Your task to perform on an android device: turn on improve location accuracy Image 0: 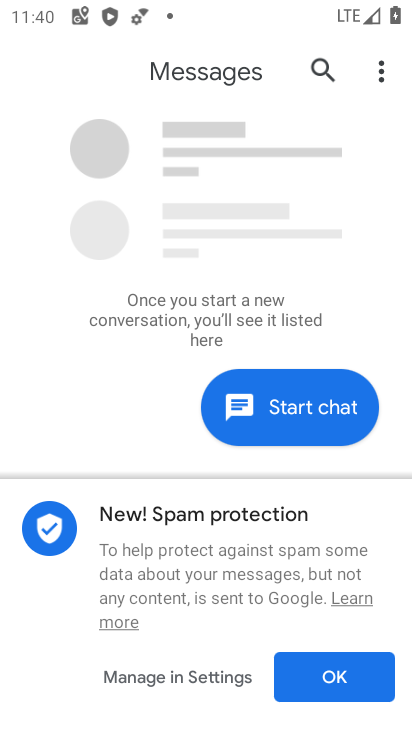
Step 0: press back button
Your task to perform on an android device: turn on improve location accuracy Image 1: 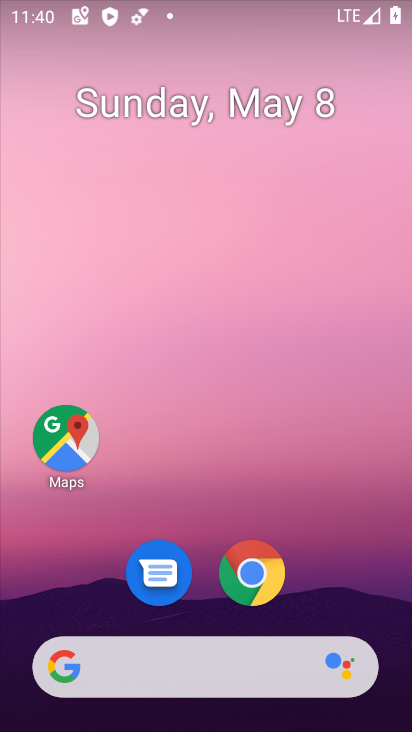
Step 1: drag from (339, 595) to (262, 19)
Your task to perform on an android device: turn on improve location accuracy Image 2: 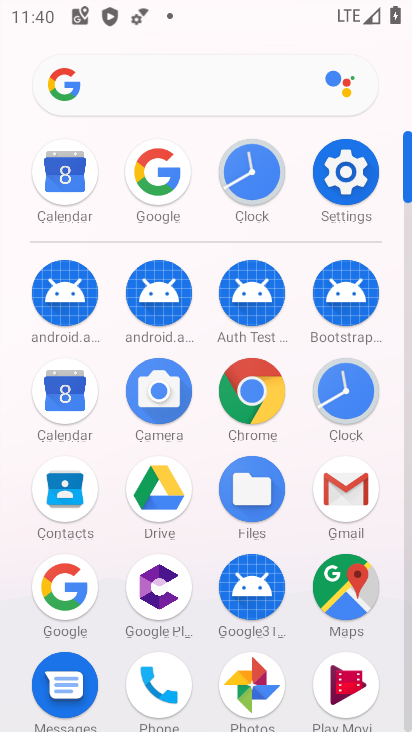
Step 2: drag from (3, 582) to (0, 323)
Your task to perform on an android device: turn on improve location accuracy Image 3: 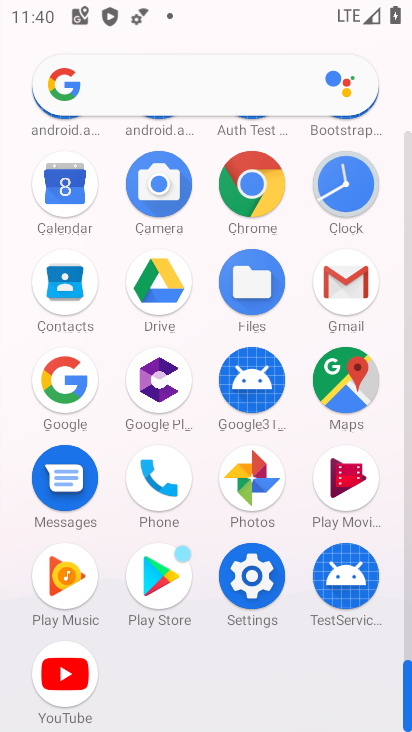
Step 3: drag from (17, 600) to (27, 374)
Your task to perform on an android device: turn on improve location accuracy Image 4: 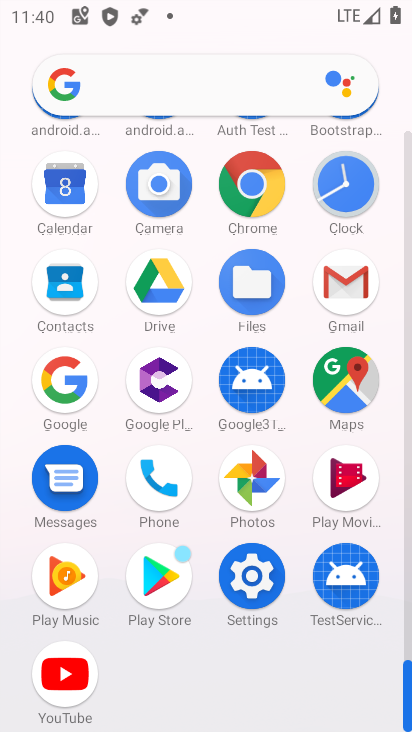
Step 4: click (250, 570)
Your task to perform on an android device: turn on improve location accuracy Image 5: 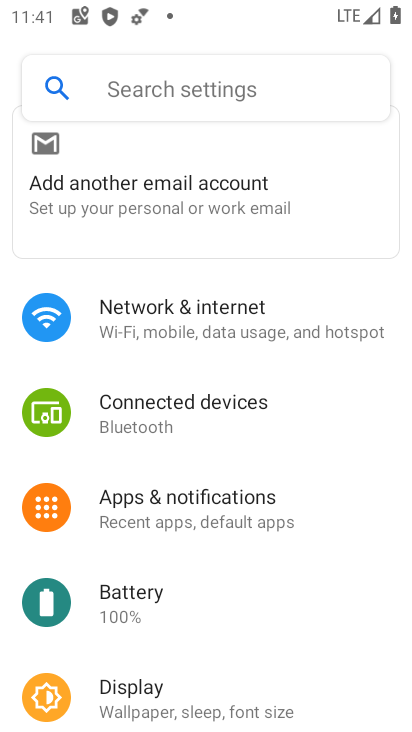
Step 5: drag from (288, 652) to (333, 285)
Your task to perform on an android device: turn on improve location accuracy Image 6: 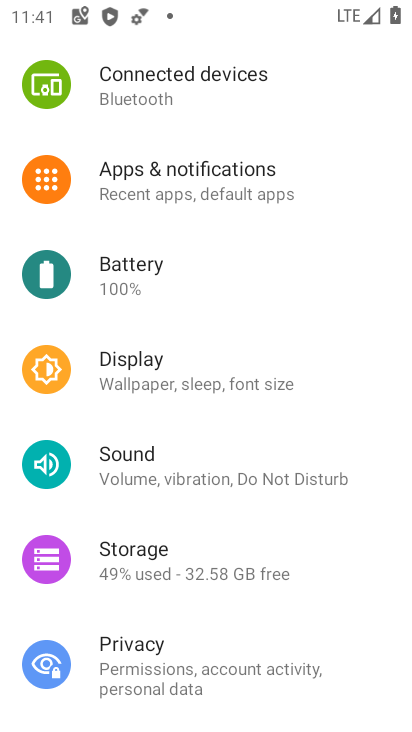
Step 6: drag from (251, 547) to (305, 142)
Your task to perform on an android device: turn on improve location accuracy Image 7: 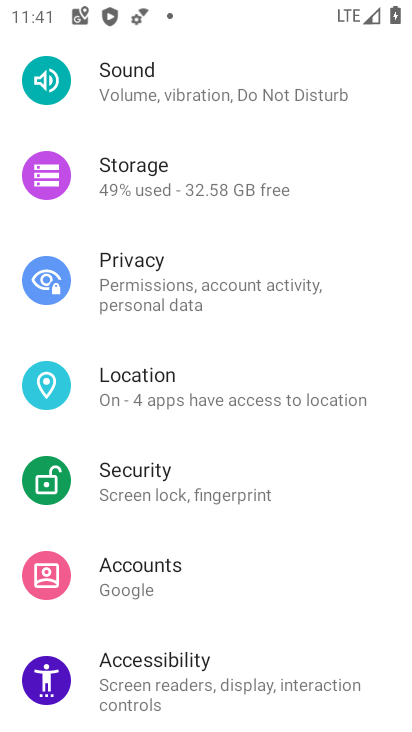
Step 7: click (172, 388)
Your task to perform on an android device: turn on improve location accuracy Image 8: 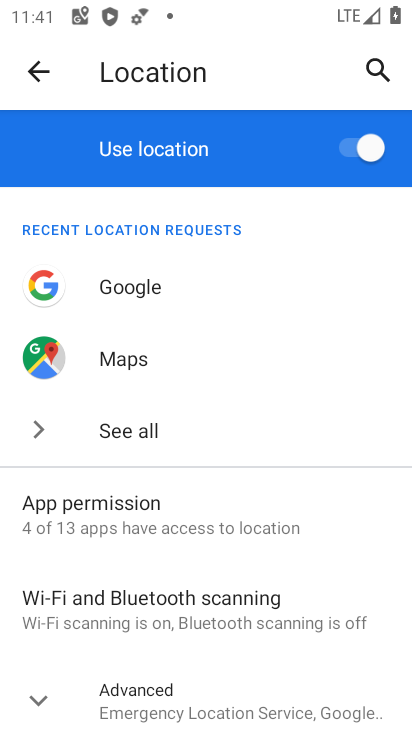
Step 8: drag from (237, 612) to (222, 271)
Your task to perform on an android device: turn on improve location accuracy Image 9: 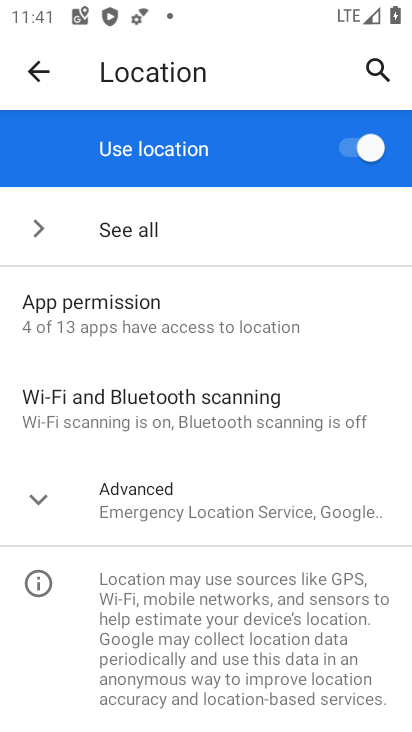
Step 9: click (38, 510)
Your task to perform on an android device: turn on improve location accuracy Image 10: 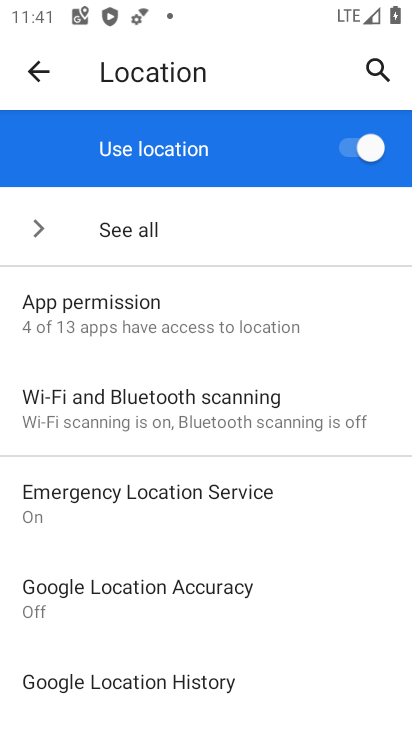
Step 10: drag from (208, 611) to (206, 234)
Your task to perform on an android device: turn on improve location accuracy Image 11: 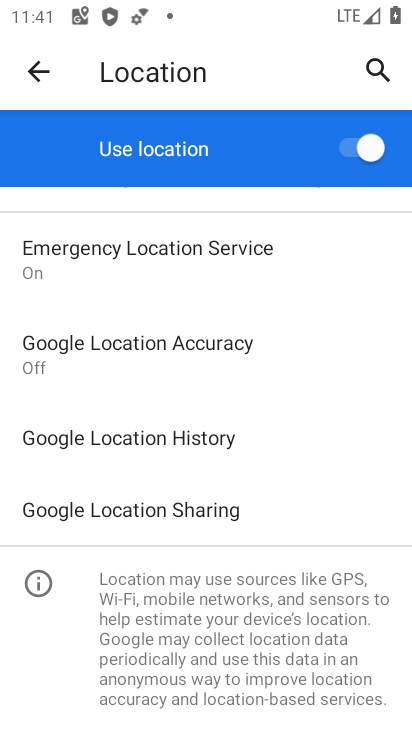
Step 11: click (192, 347)
Your task to perform on an android device: turn on improve location accuracy Image 12: 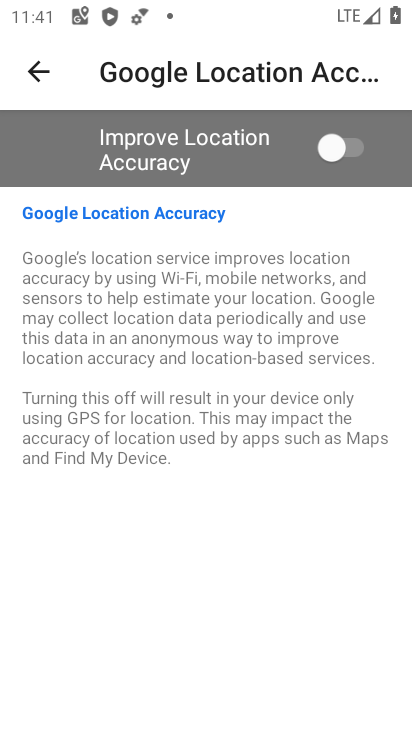
Step 12: click (350, 137)
Your task to perform on an android device: turn on improve location accuracy Image 13: 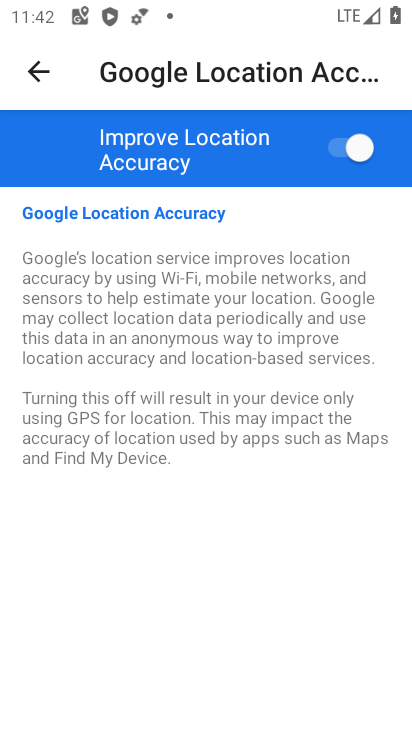
Step 13: task complete